Your task to perform on an android device: Go to notification settings Image 0: 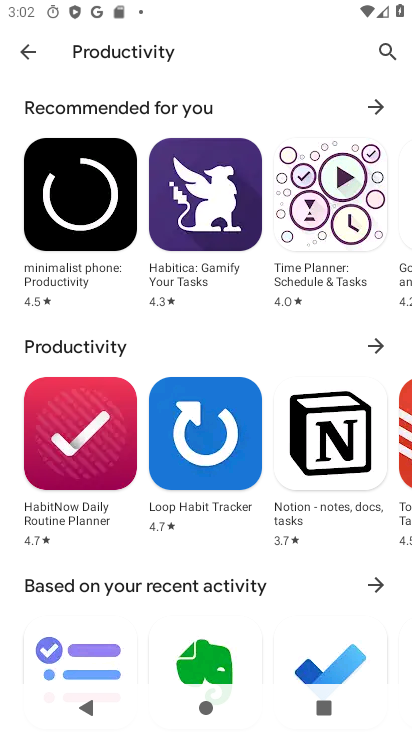
Step 0: press back button
Your task to perform on an android device: Go to notification settings Image 1: 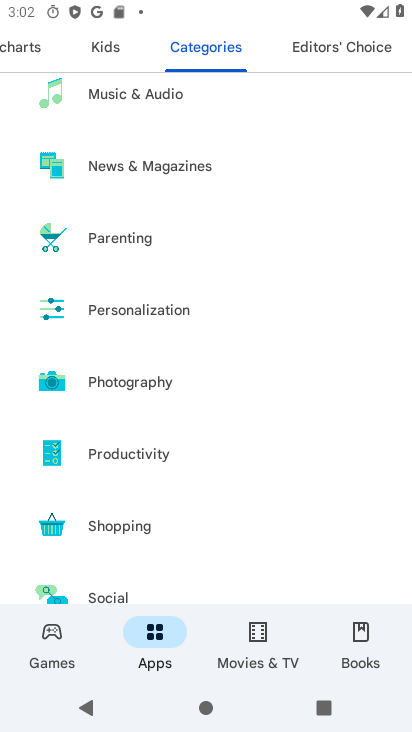
Step 1: press back button
Your task to perform on an android device: Go to notification settings Image 2: 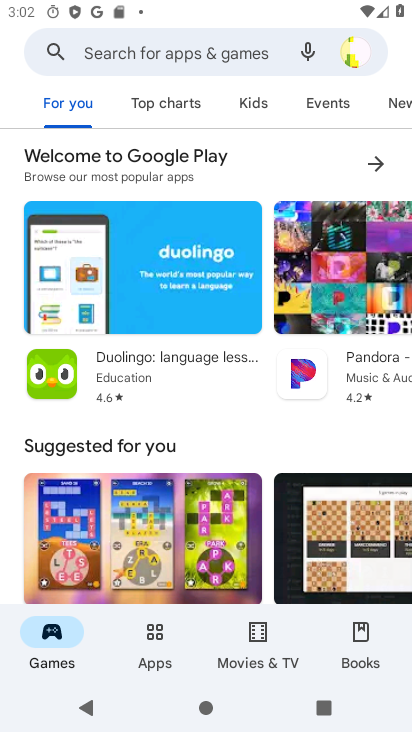
Step 2: press back button
Your task to perform on an android device: Go to notification settings Image 3: 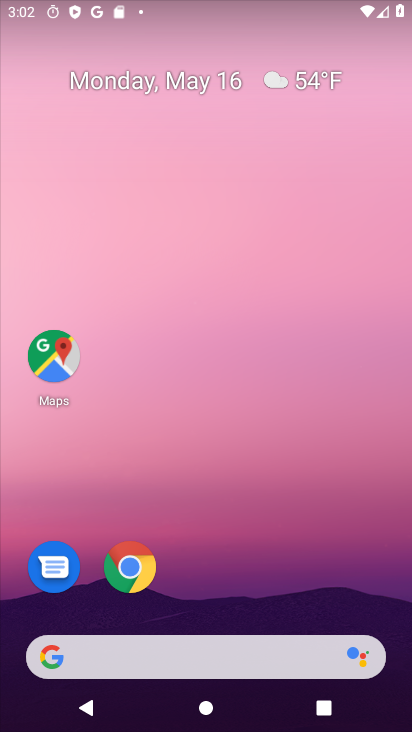
Step 3: drag from (232, 572) to (227, 137)
Your task to perform on an android device: Go to notification settings Image 4: 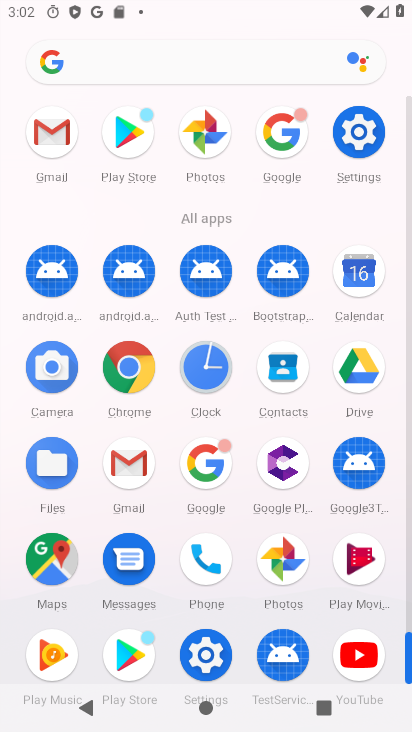
Step 4: click (362, 132)
Your task to perform on an android device: Go to notification settings Image 5: 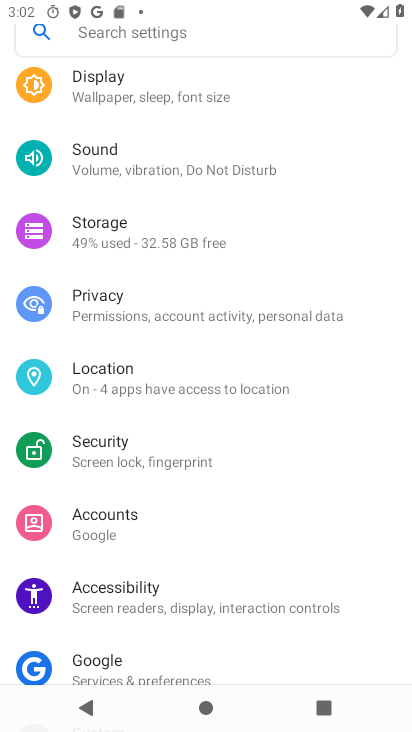
Step 5: drag from (202, 319) to (221, 425)
Your task to perform on an android device: Go to notification settings Image 6: 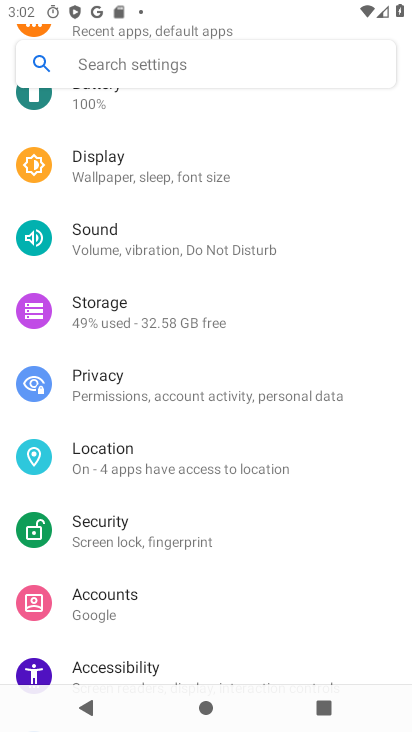
Step 6: drag from (248, 213) to (215, 424)
Your task to perform on an android device: Go to notification settings Image 7: 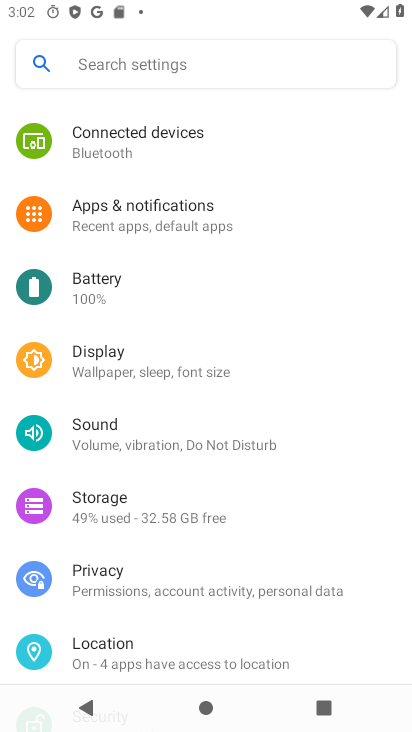
Step 7: click (177, 228)
Your task to perform on an android device: Go to notification settings Image 8: 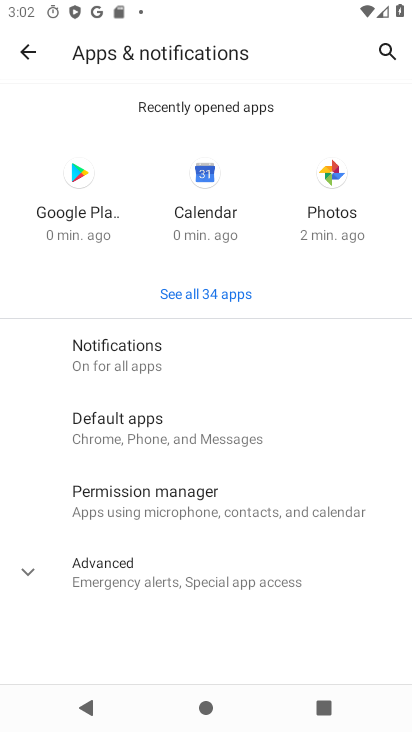
Step 8: click (135, 347)
Your task to perform on an android device: Go to notification settings Image 9: 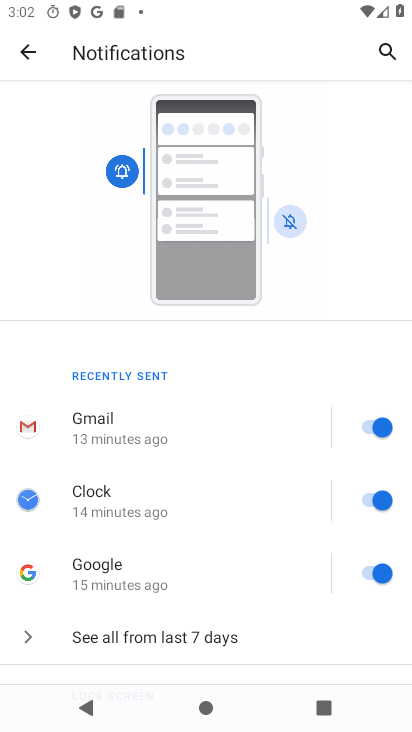
Step 9: task complete